Your task to perform on an android device: toggle show notifications on the lock screen Image 0: 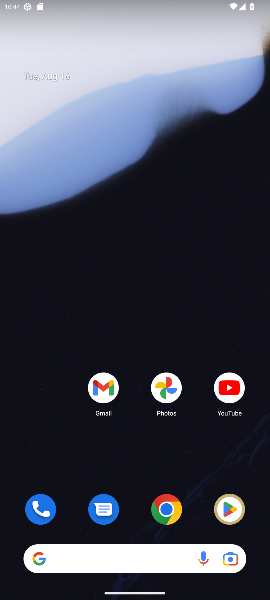
Step 0: drag from (196, 442) to (192, 117)
Your task to perform on an android device: toggle show notifications on the lock screen Image 1: 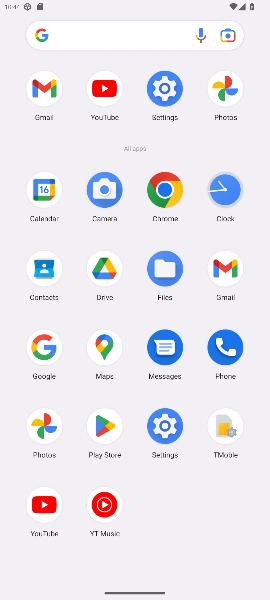
Step 1: click (172, 420)
Your task to perform on an android device: toggle show notifications on the lock screen Image 2: 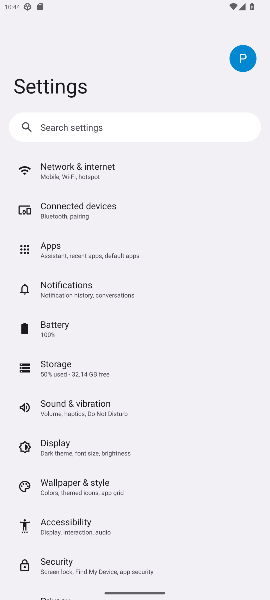
Step 2: drag from (159, 486) to (188, 232)
Your task to perform on an android device: toggle show notifications on the lock screen Image 3: 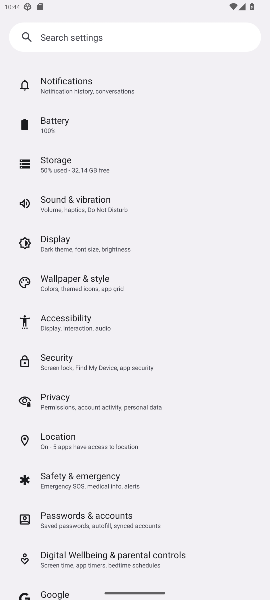
Step 3: click (49, 87)
Your task to perform on an android device: toggle show notifications on the lock screen Image 4: 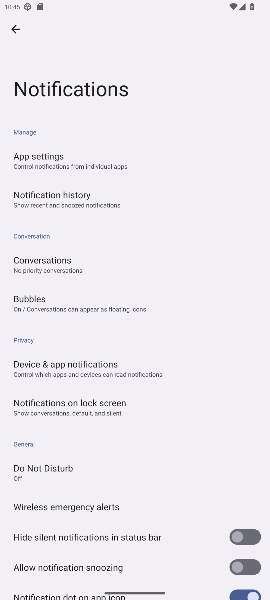
Step 4: click (95, 403)
Your task to perform on an android device: toggle show notifications on the lock screen Image 5: 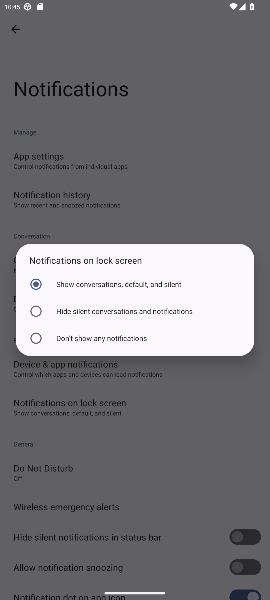
Step 5: click (118, 340)
Your task to perform on an android device: toggle show notifications on the lock screen Image 6: 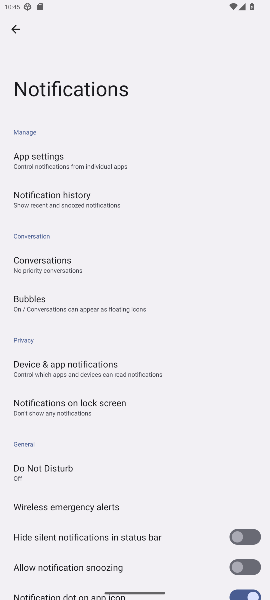
Step 6: task complete